Your task to perform on an android device: Show the shopping cart on walmart.com. Add "apple airpods pro" to the cart on walmart.com, then select checkout. Image 0: 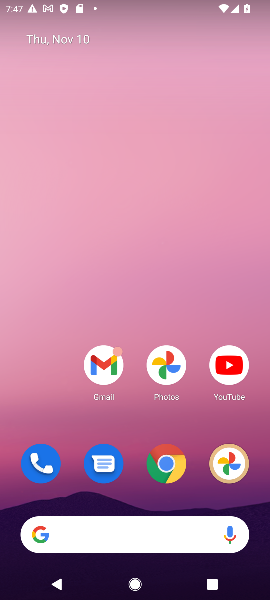
Step 0: click (168, 456)
Your task to perform on an android device: Show the shopping cart on walmart.com. Add "apple airpods pro" to the cart on walmart.com, then select checkout. Image 1: 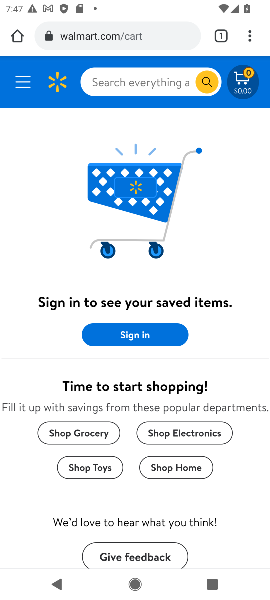
Step 1: click (125, 79)
Your task to perform on an android device: Show the shopping cart on walmart.com. Add "apple airpods pro" to the cart on walmart.com, then select checkout. Image 2: 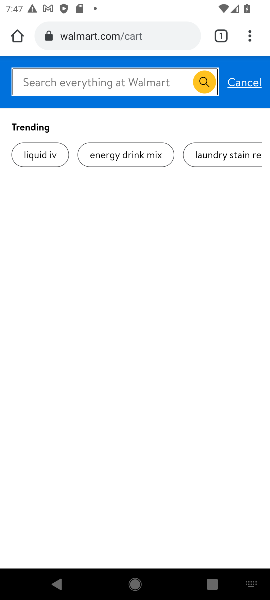
Step 2: type "apple airpods pro"
Your task to perform on an android device: Show the shopping cart on walmart.com. Add "apple airpods pro" to the cart on walmart.com, then select checkout. Image 3: 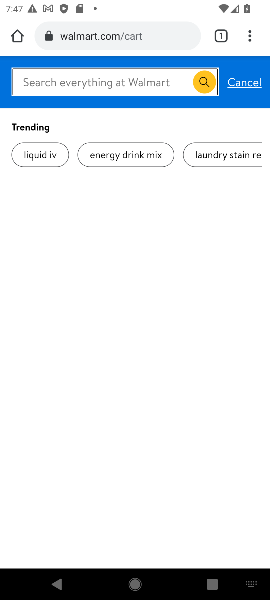
Step 3: press enter
Your task to perform on an android device: Show the shopping cart on walmart.com. Add "apple airpods pro" to the cart on walmart.com, then select checkout. Image 4: 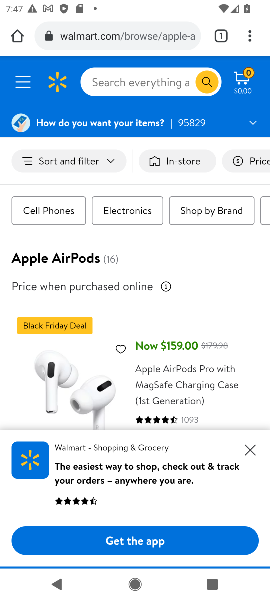
Step 4: click (250, 445)
Your task to perform on an android device: Show the shopping cart on walmart.com. Add "apple airpods pro" to the cart on walmart.com, then select checkout. Image 5: 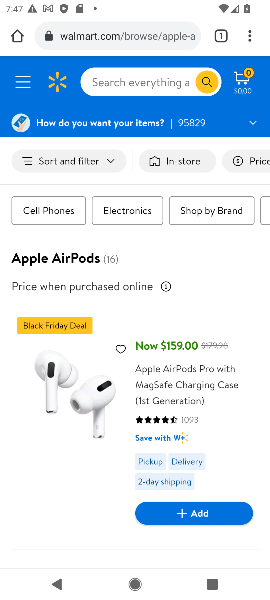
Step 5: click (201, 515)
Your task to perform on an android device: Show the shopping cart on walmart.com. Add "apple airpods pro" to the cart on walmart.com, then select checkout. Image 6: 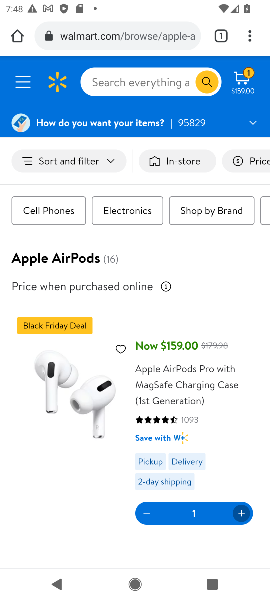
Step 6: click (244, 76)
Your task to perform on an android device: Show the shopping cart on walmart.com. Add "apple airpods pro" to the cart on walmart.com, then select checkout. Image 7: 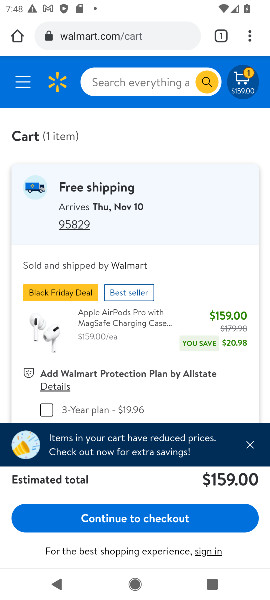
Step 7: click (167, 523)
Your task to perform on an android device: Show the shopping cart on walmart.com. Add "apple airpods pro" to the cart on walmart.com, then select checkout. Image 8: 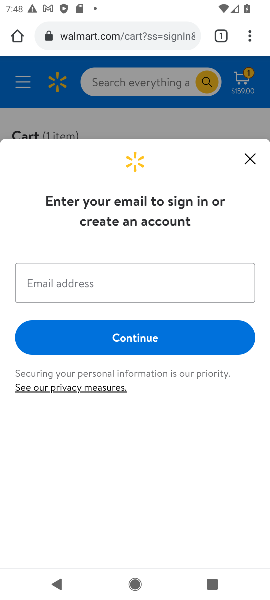
Step 8: task complete